Your task to perform on an android device: Search for Italian restaurants on Maps Image 0: 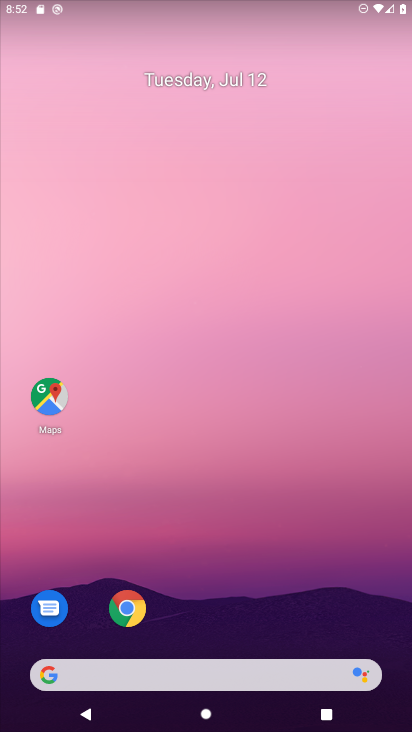
Step 0: click (40, 405)
Your task to perform on an android device: Search for Italian restaurants on Maps Image 1: 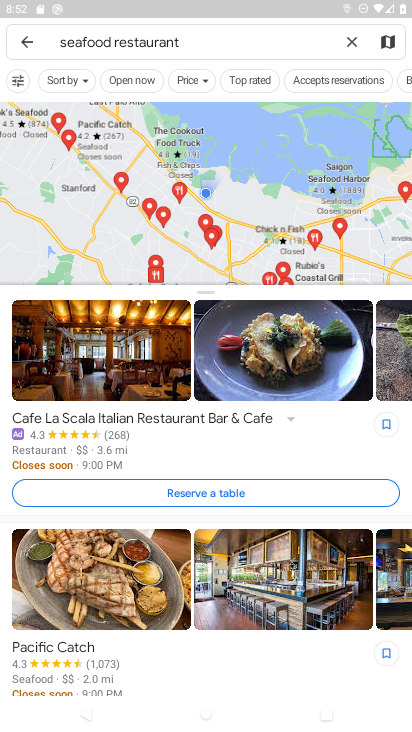
Step 1: click (351, 33)
Your task to perform on an android device: Search for Italian restaurants on Maps Image 2: 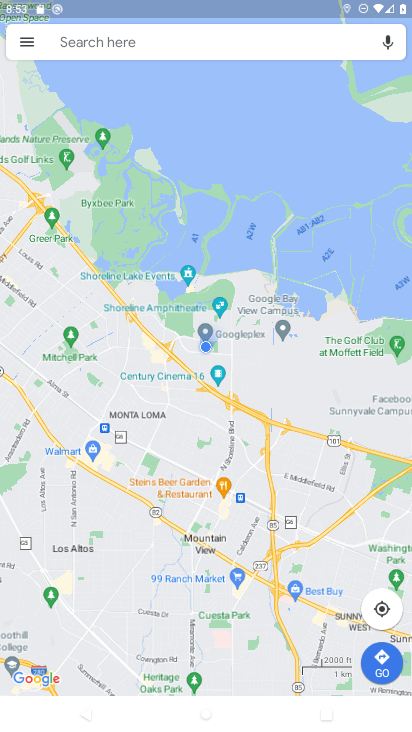
Step 2: click (214, 32)
Your task to perform on an android device: Search for Italian restaurants on Maps Image 3: 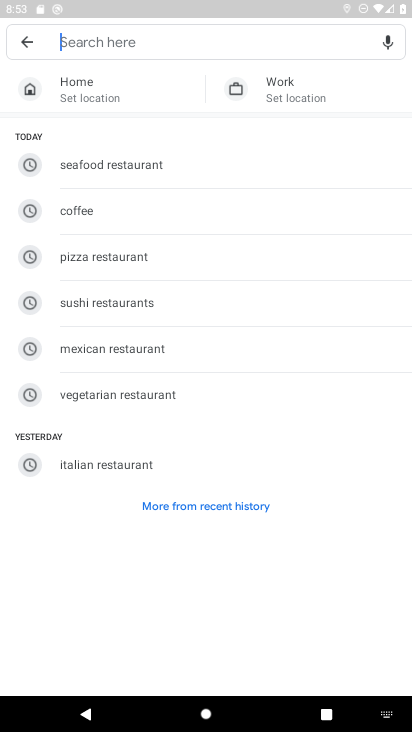
Step 3: click (169, 469)
Your task to perform on an android device: Search for Italian restaurants on Maps Image 4: 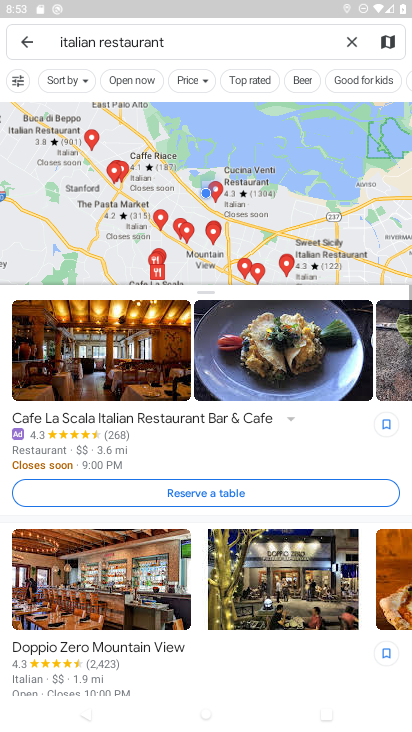
Step 4: task complete